Your task to perform on an android device: check the backup settings in the google photos Image 0: 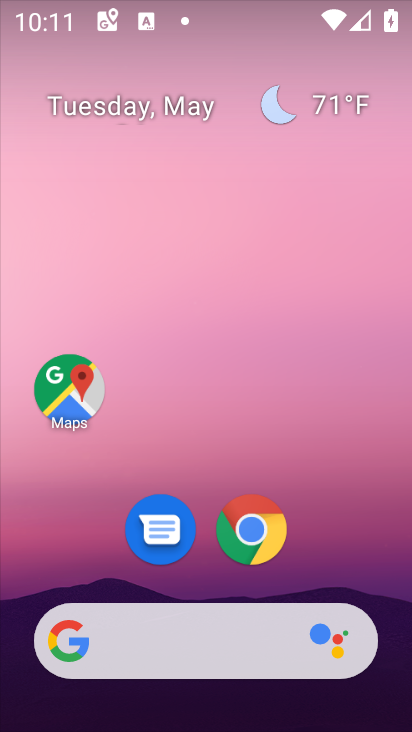
Step 0: drag from (276, 589) to (288, 252)
Your task to perform on an android device: check the backup settings in the google photos Image 1: 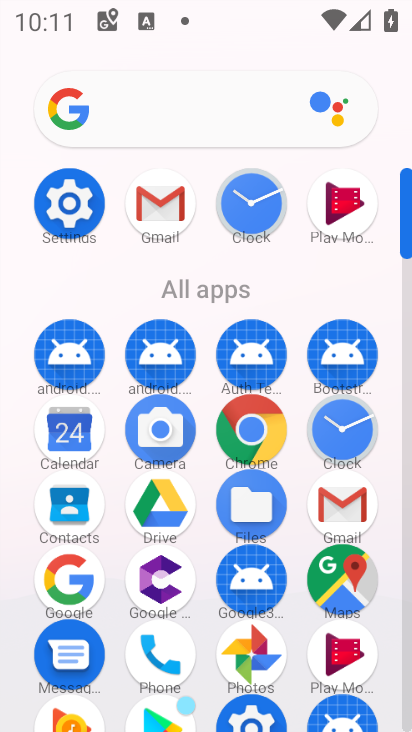
Step 1: drag from (247, 520) to (230, 240)
Your task to perform on an android device: check the backup settings in the google photos Image 2: 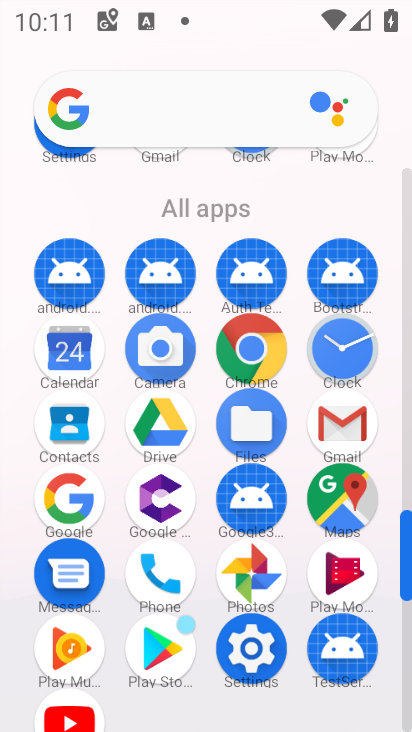
Step 2: click (250, 586)
Your task to perform on an android device: check the backup settings in the google photos Image 3: 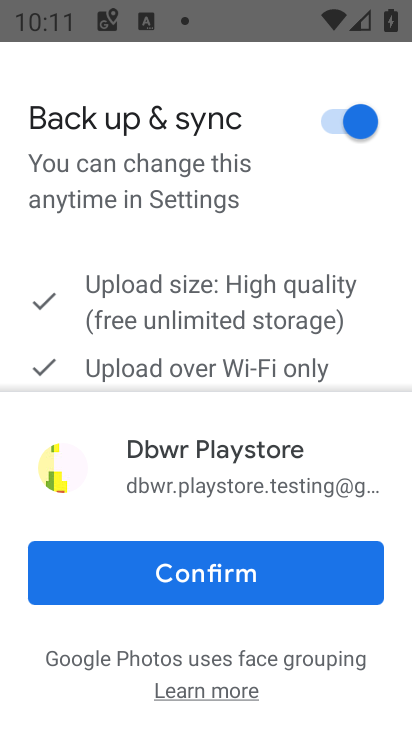
Step 3: click (211, 586)
Your task to perform on an android device: check the backup settings in the google photos Image 4: 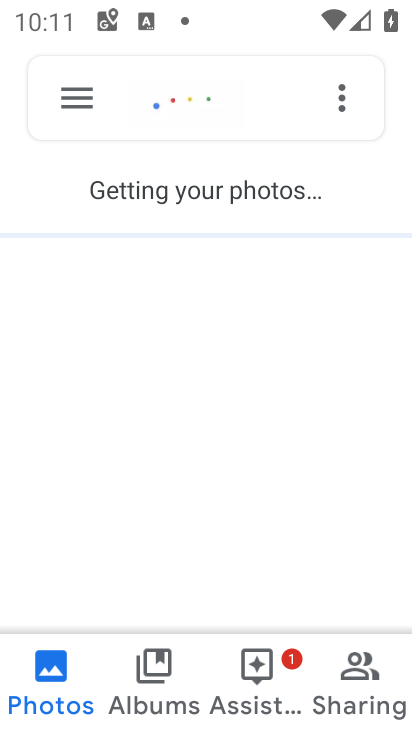
Step 4: click (79, 89)
Your task to perform on an android device: check the backup settings in the google photos Image 5: 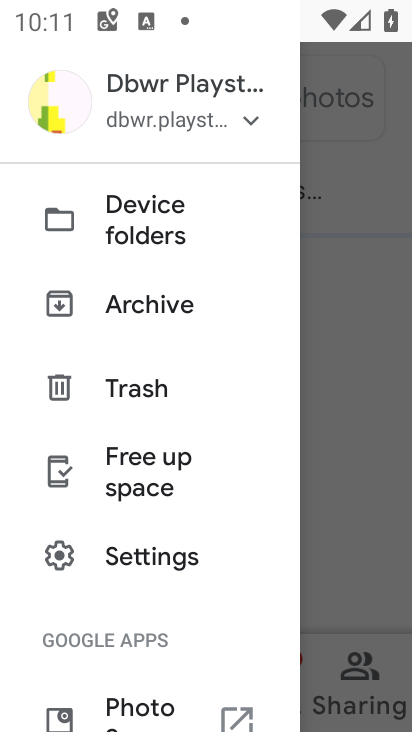
Step 5: drag from (140, 447) to (144, 238)
Your task to perform on an android device: check the backup settings in the google photos Image 6: 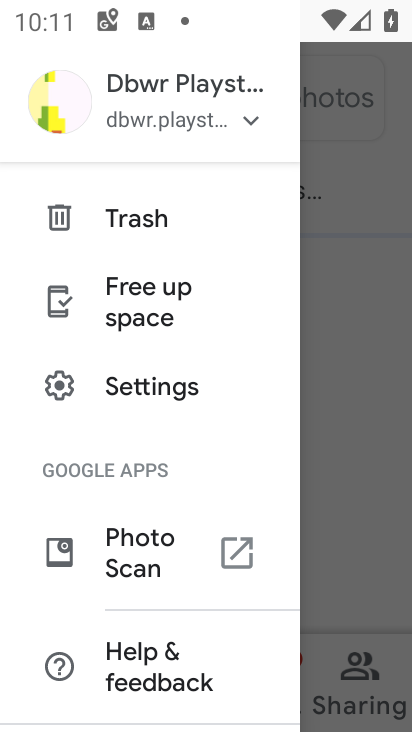
Step 6: drag from (130, 571) to (130, 406)
Your task to perform on an android device: check the backup settings in the google photos Image 7: 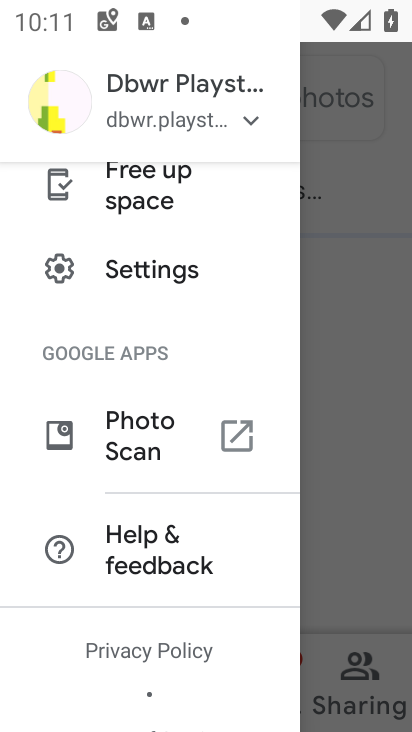
Step 7: drag from (163, 527) to (181, 397)
Your task to perform on an android device: check the backup settings in the google photos Image 8: 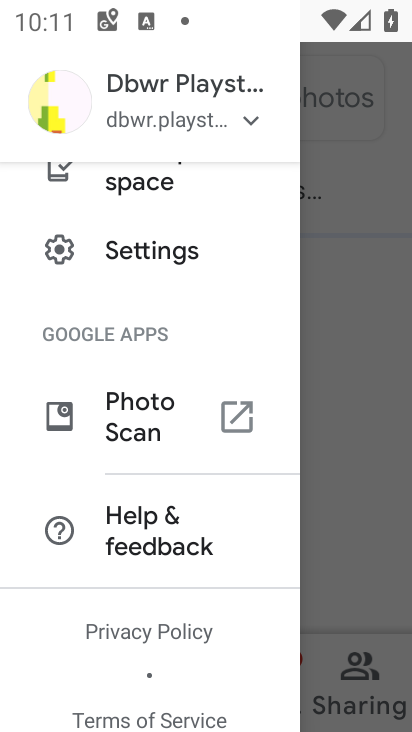
Step 8: click (141, 255)
Your task to perform on an android device: check the backup settings in the google photos Image 9: 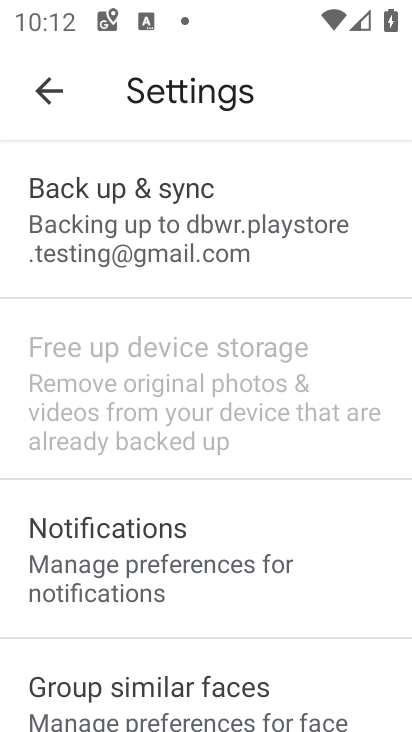
Step 9: click (241, 207)
Your task to perform on an android device: check the backup settings in the google photos Image 10: 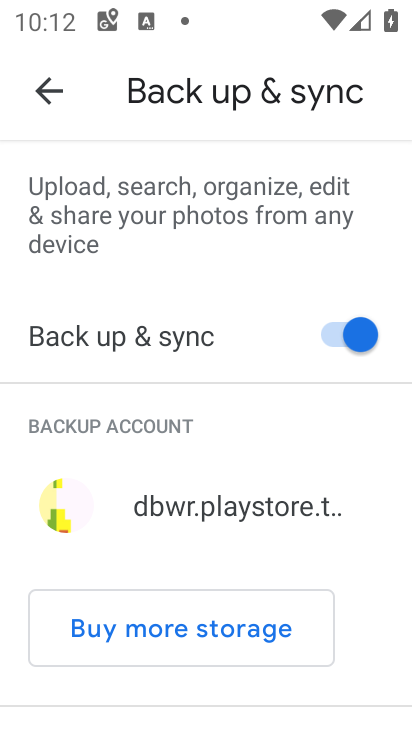
Step 10: task complete